Your task to perform on an android device: Open the Play Movies app and select the watchlist tab. Image 0: 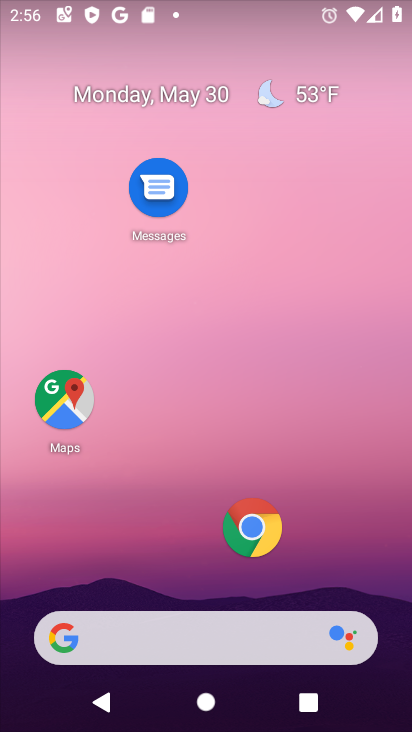
Step 0: drag from (317, 533) to (338, 94)
Your task to perform on an android device: Open the Play Movies app and select the watchlist tab. Image 1: 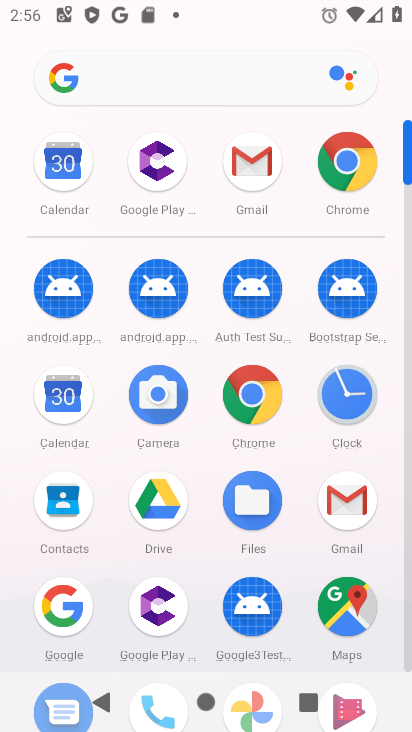
Step 1: drag from (214, 248) to (203, 71)
Your task to perform on an android device: Open the Play Movies app and select the watchlist tab. Image 2: 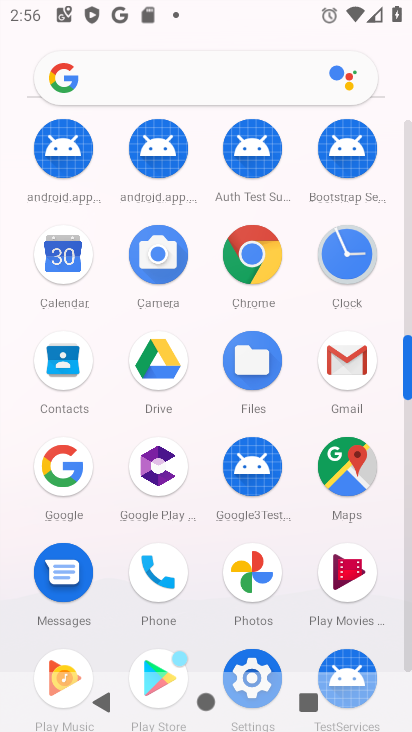
Step 2: click (349, 575)
Your task to perform on an android device: Open the Play Movies app and select the watchlist tab. Image 3: 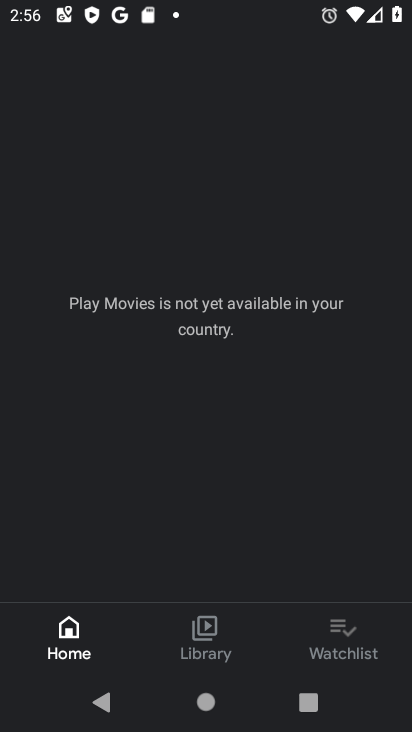
Step 3: click (350, 630)
Your task to perform on an android device: Open the Play Movies app and select the watchlist tab. Image 4: 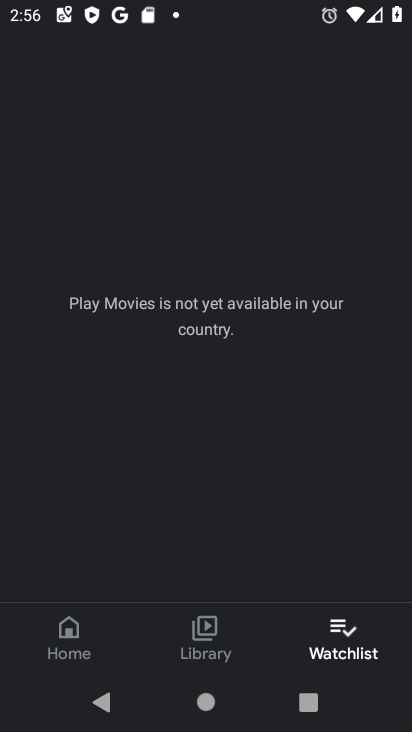
Step 4: task complete